Your task to perform on an android device: Clear the shopping cart on target. Add lg ultragear to the cart on target Image 0: 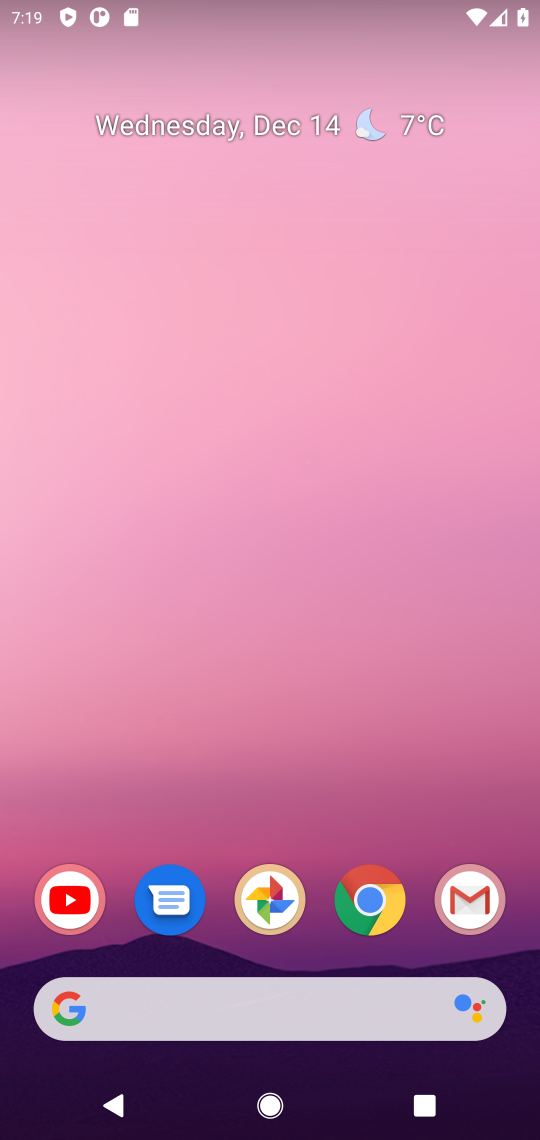
Step 0: click (235, 1005)
Your task to perform on an android device: Clear the shopping cart on target. Add lg ultragear to the cart on target Image 1: 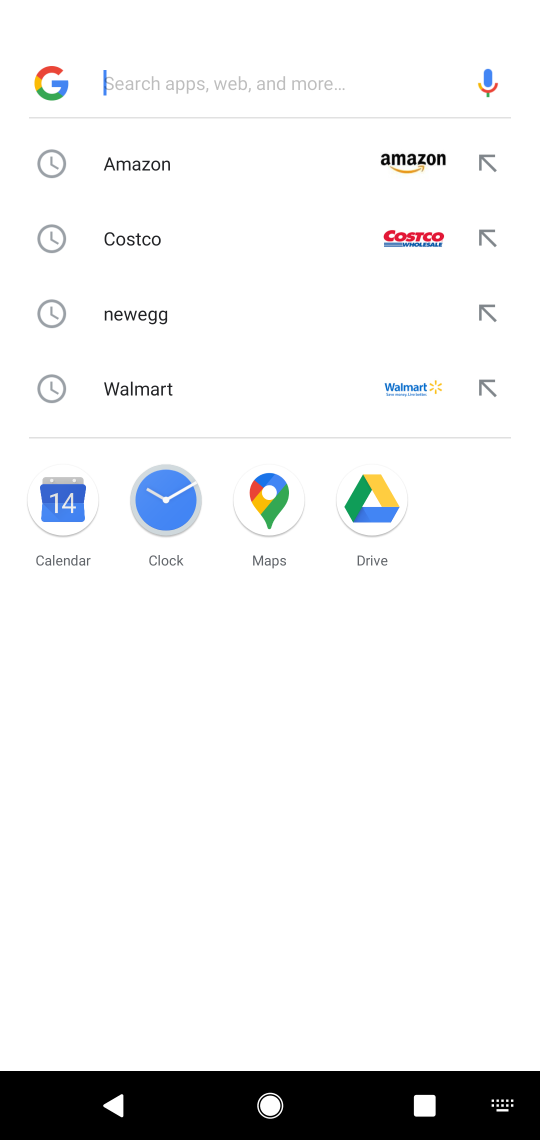
Step 1: type "target"
Your task to perform on an android device: Clear the shopping cart on target. Add lg ultragear to the cart on target Image 2: 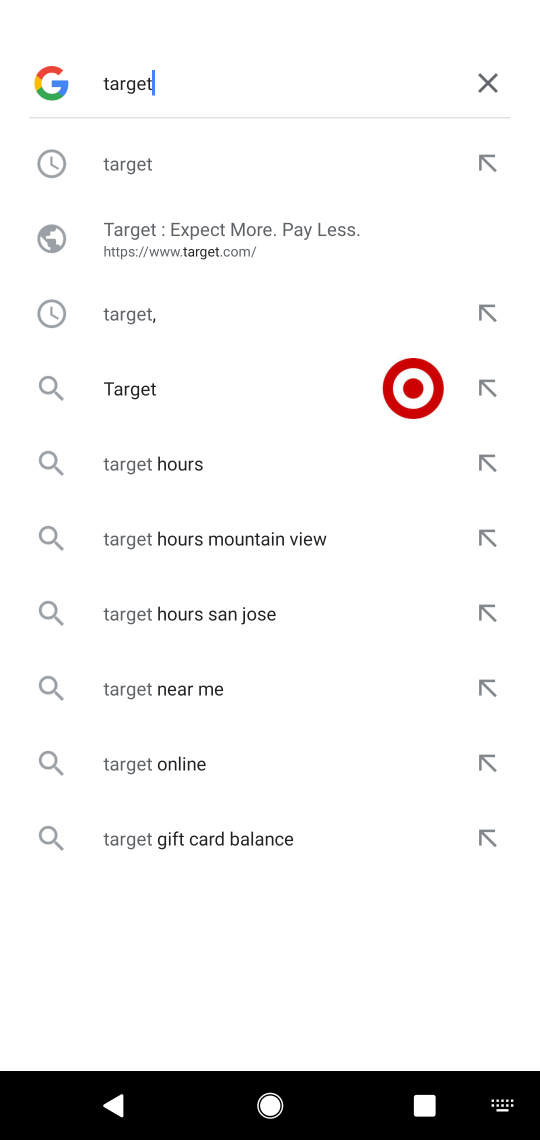
Step 2: click (234, 399)
Your task to perform on an android device: Clear the shopping cart on target. Add lg ultragear to the cart on target Image 3: 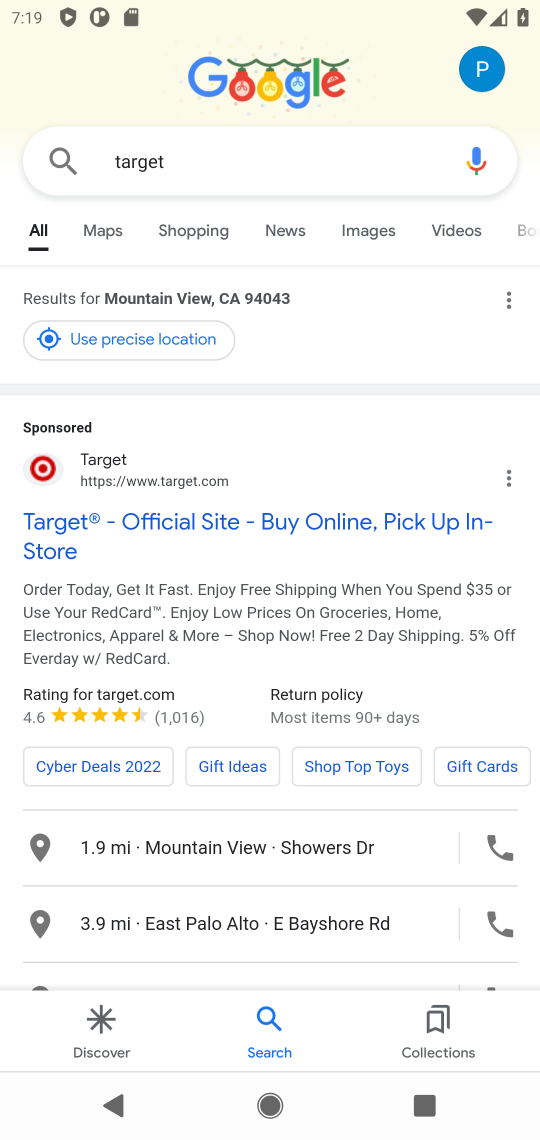
Step 3: click (147, 518)
Your task to perform on an android device: Clear the shopping cart on target. Add lg ultragear to the cart on target Image 4: 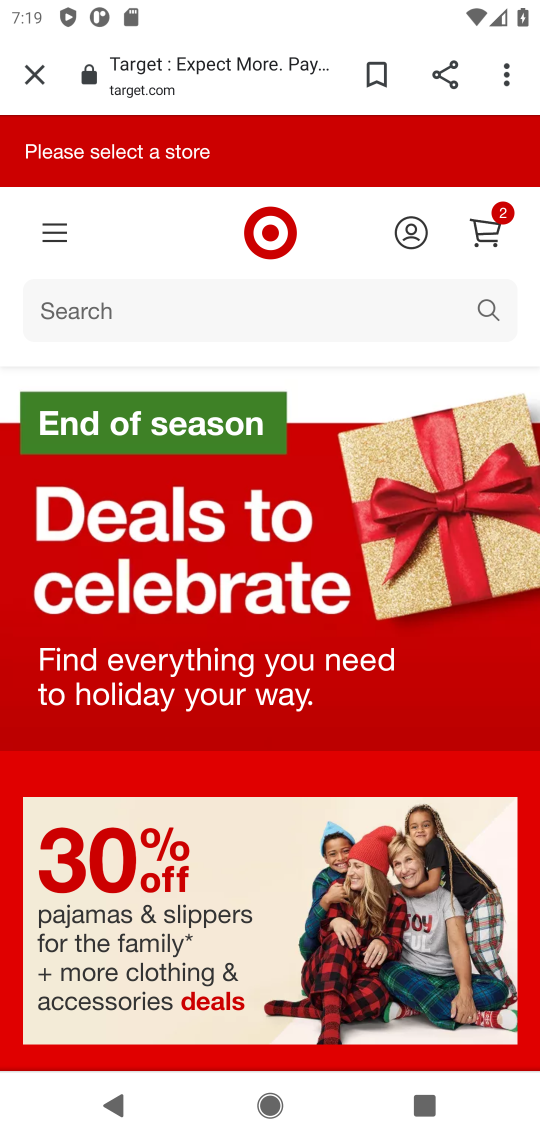
Step 4: click (259, 309)
Your task to perform on an android device: Clear the shopping cart on target. Add lg ultragear to the cart on target Image 5: 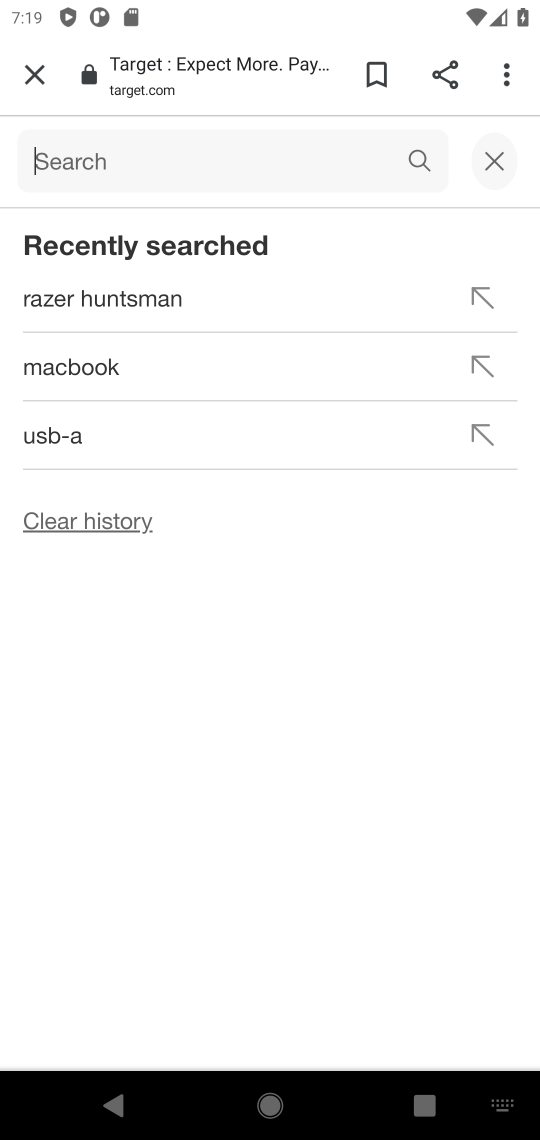
Step 5: type " lg ultragear"
Your task to perform on an android device: Clear the shopping cart on target. Add lg ultragear to the cart on target Image 6: 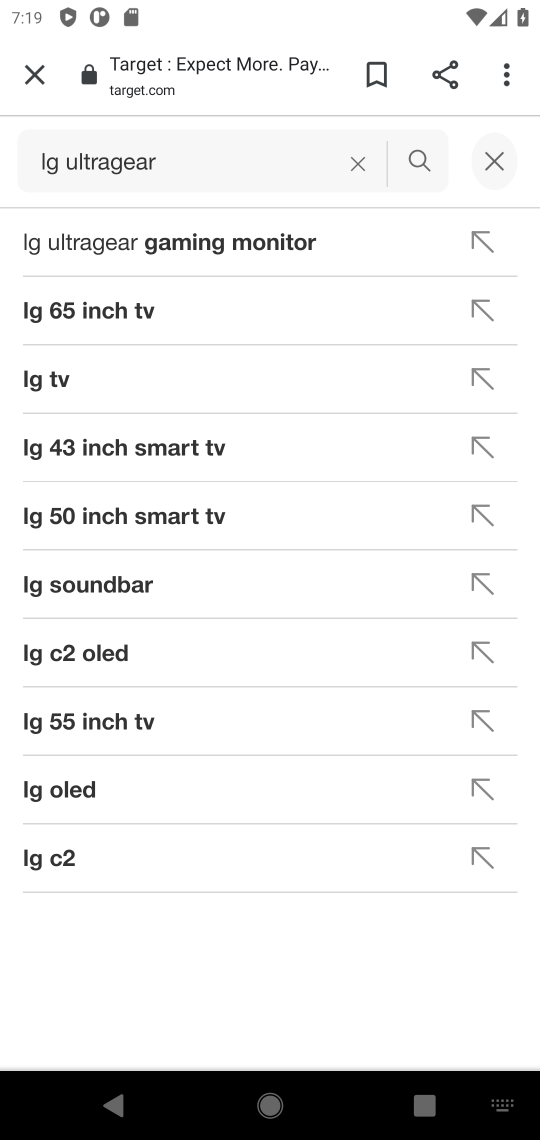
Step 6: click (411, 170)
Your task to perform on an android device: Clear the shopping cart on target. Add lg ultragear to the cart on target Image 7: 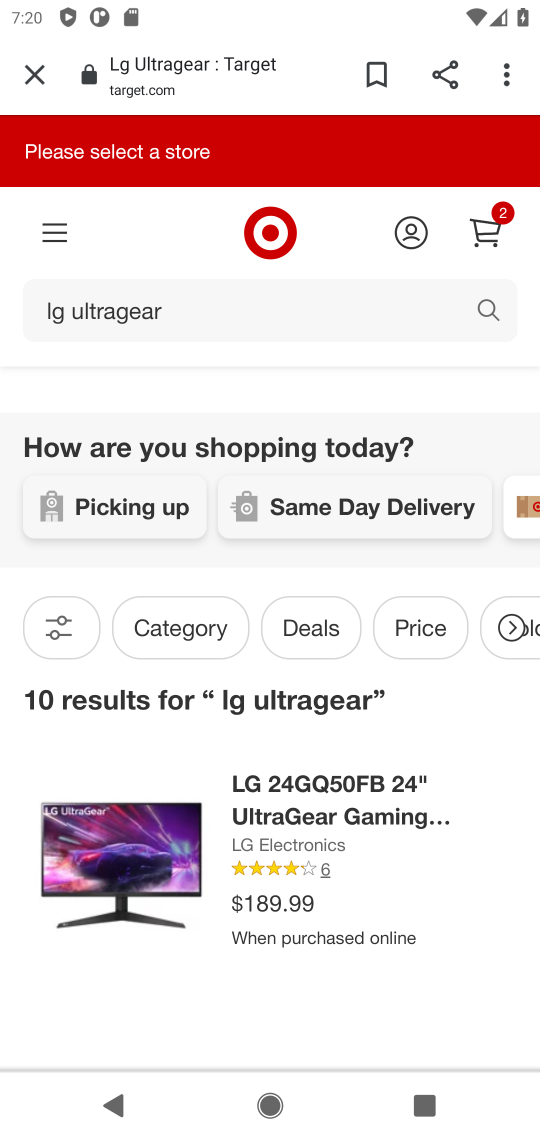
Step 7: click (281, 844)
Your task to perform on an android device: Clear the shopping cart on target. Add lg ultragear to the cart on target Image 8: 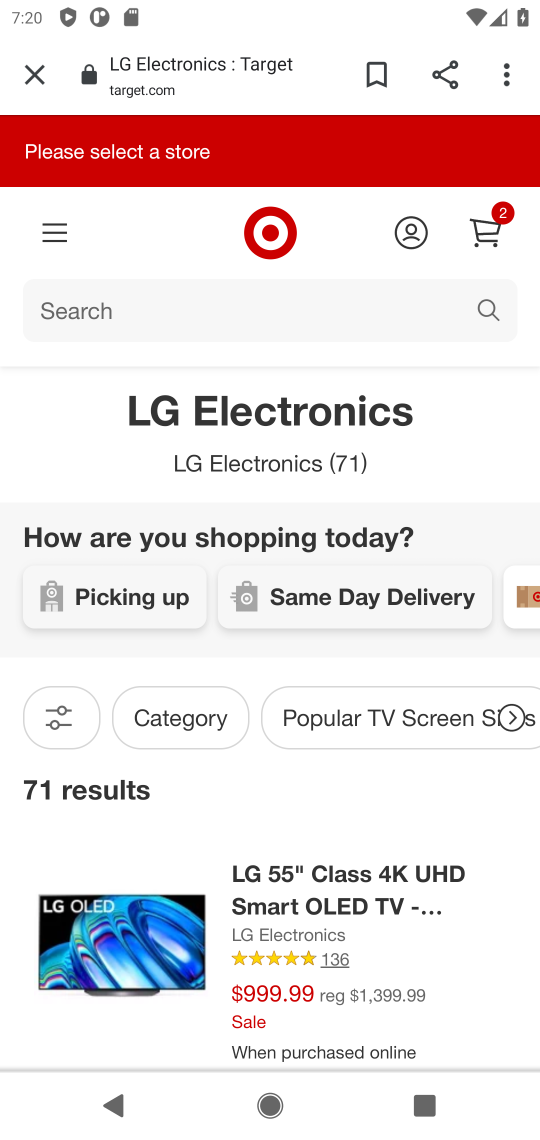
Step 8: click (253, 983)
Your task to perform on an android device: Clear the shopping cart on target. Add lg ultragear to the cart on target Image 9: 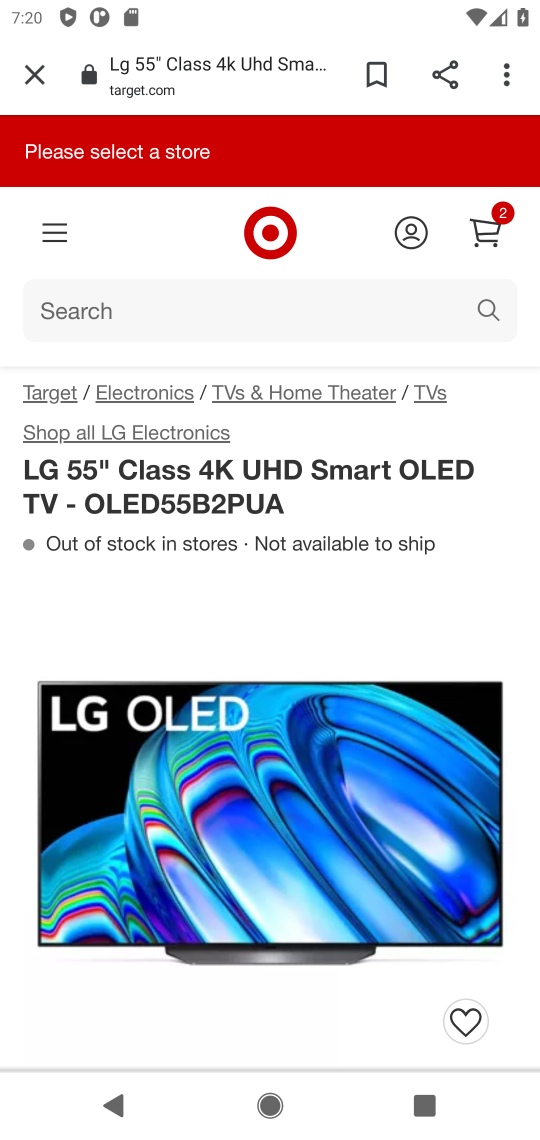
Step 9: drag from (315, 713) to (324, 568)
Your task to perform on an android device: Clear the shopping cart on target. Add lg ultragear to the cart on target Image 10: 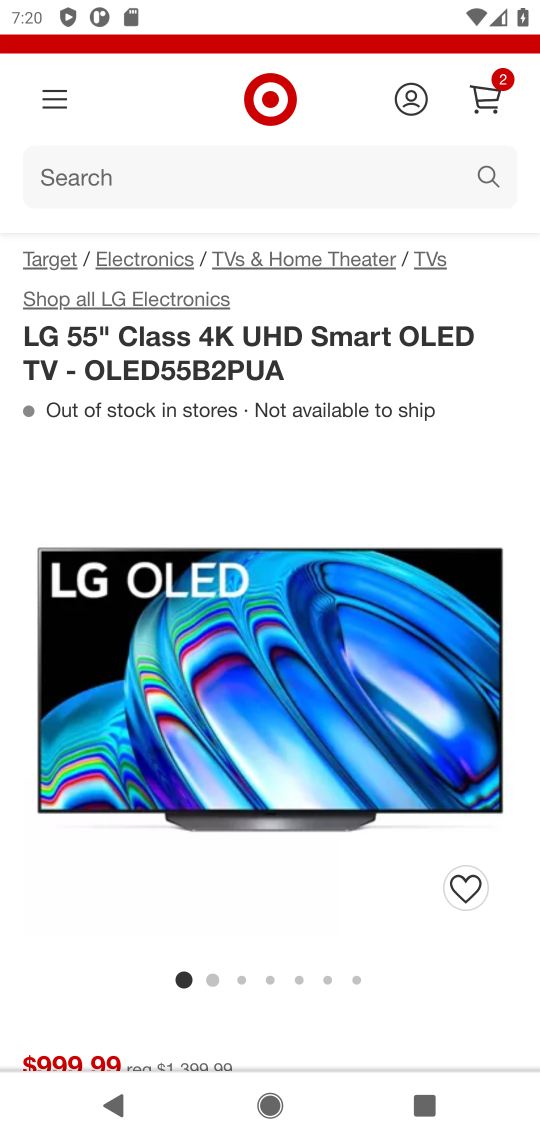
Step 10: drag from (322, 893) to (322, 616)
Your task to perform on an android device: Clear the shopping cart on target. Add lg ultragear to the cart on target Image 11: 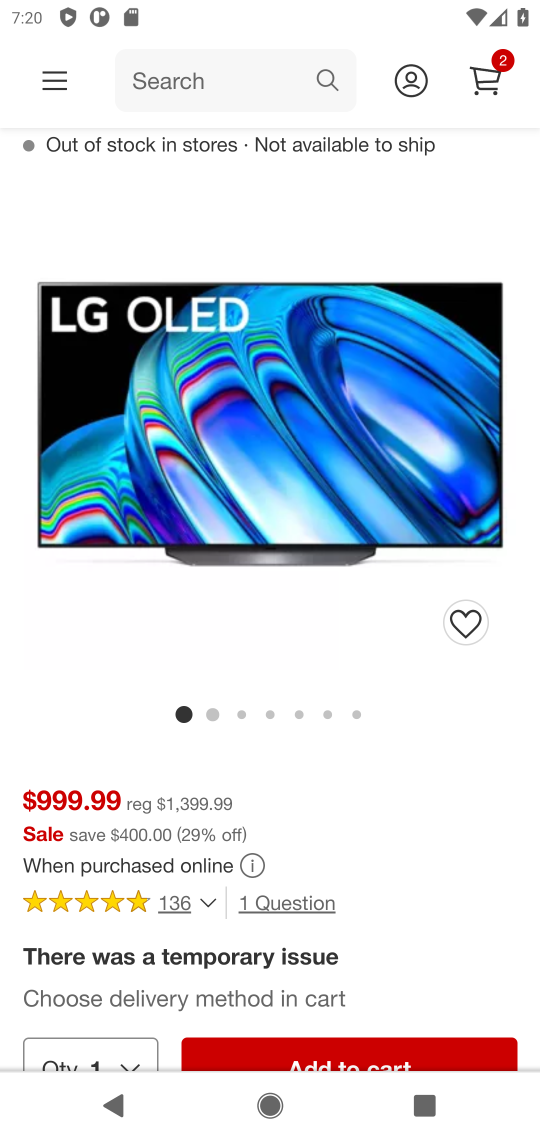
Step 11: drag from (351, 861) to (337, 529)
Your task to perform on an android device: Clear the shopping cart on target. Add lg ultragear to the cart on target Image 12: 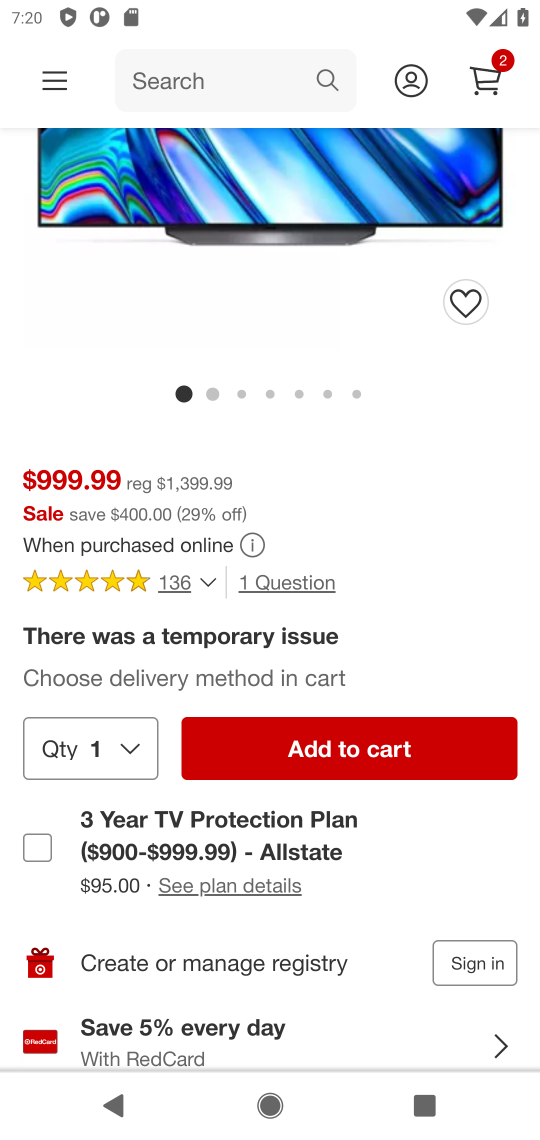
Step 12: click (324, 748)
Your task to perform on an android device: Clear the shopping cart on target. Add lg ultragear to the cart on target Image 13: 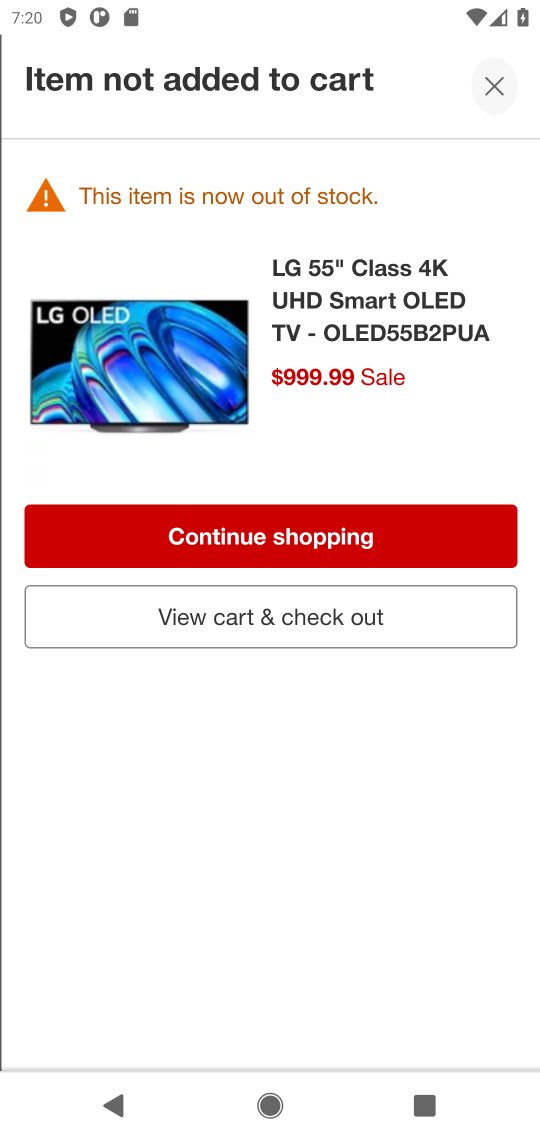
Step 13: task complete